Your task to perform on an android device: Check the weather Image 0: 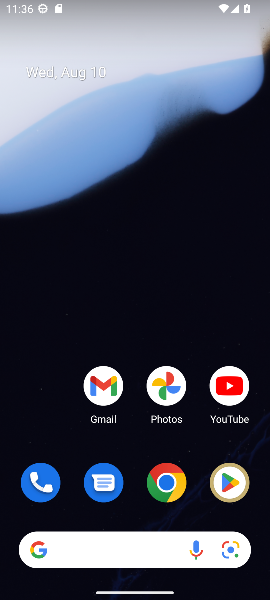
Step 0: click (159, 545)
Your task to perform on an android device: Check the weather Image 1: 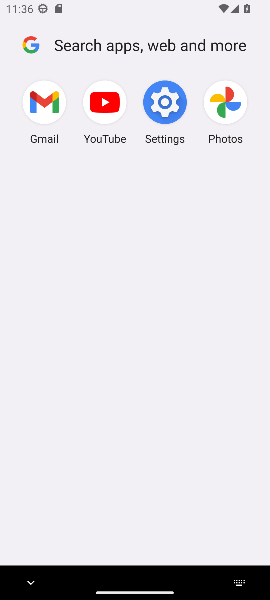
Step 1: type "Check the weather"
Your task to perform on an android device: Check the weather Image 2: 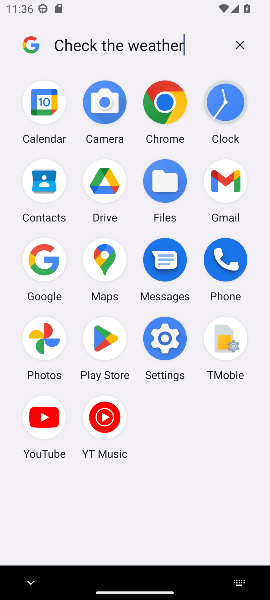
Step 2: type ""
Your task to perform on an android device: Check the weather Image 3: 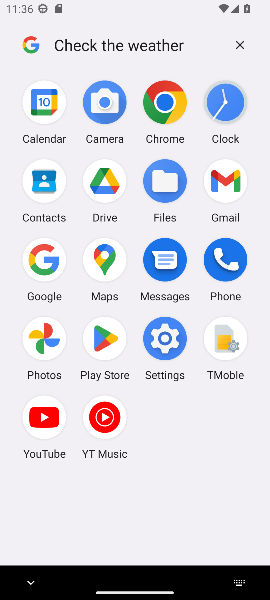
Step 3: press enter
Your task to perform on an android device: Check the weather Image 4: 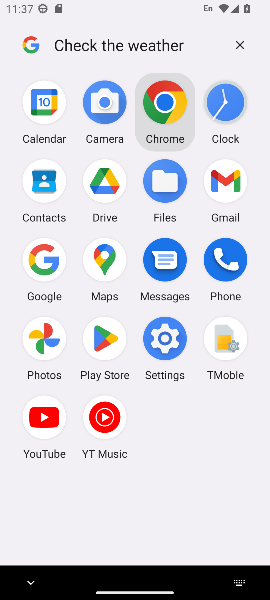
Step 4: press enter
Your task to perform on an android device: Check the weather Image 5: 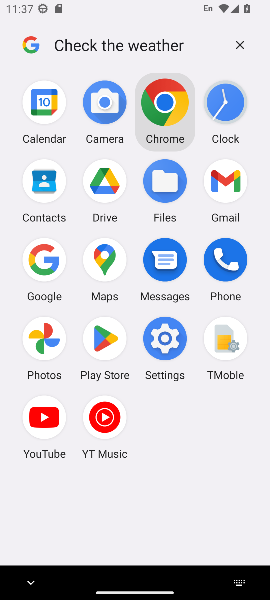
Step 5: press enter
Your task to perform on an android device: Check the weather Image 6: 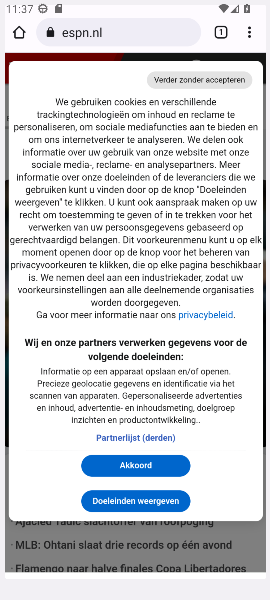
Step 6: press enter
Your task to perform on an android device: Check the weather Image 7: 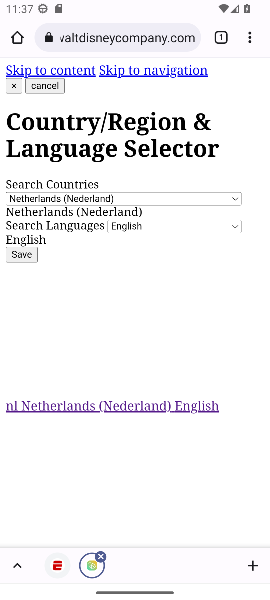
Step 7: task complete